Your task to perform on an android device: stop showing notifications on the lock screen Image 0: 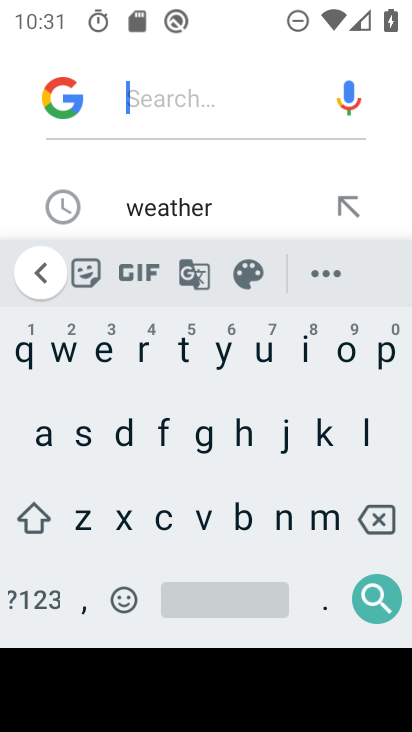
Step 0: press home button
Your task to perform on an android device: stop showing notifications on the lock screen Image 1: 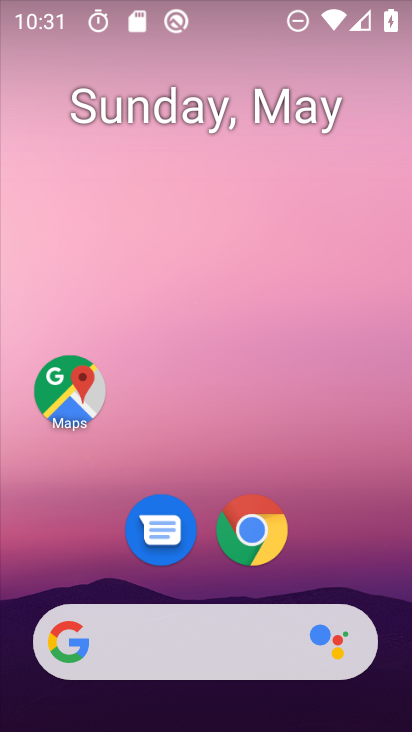
Step 1: drag from (219, 689) to (209, 116)
Your task to perform on an android device: stop showing notifications on the lock screen Image 2: 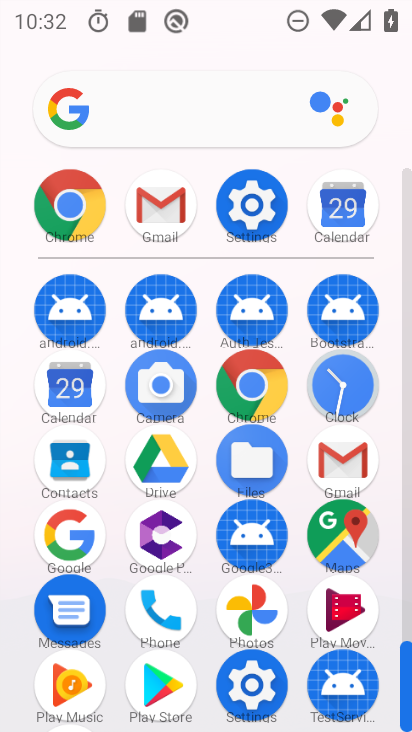
Step 2: click (247, 206)
Your task to perform on an android device: stop showing notifications on the lock screen Image 3: 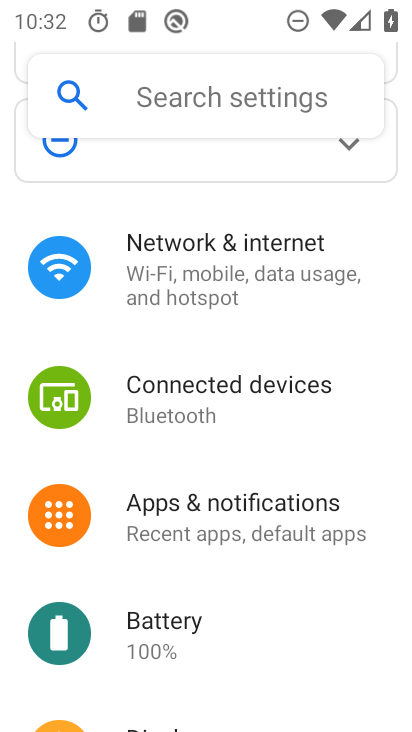
Step 3: click (155, 105)
Your task to perform on an android device: stop showing notifications on the lock screen Image 4: 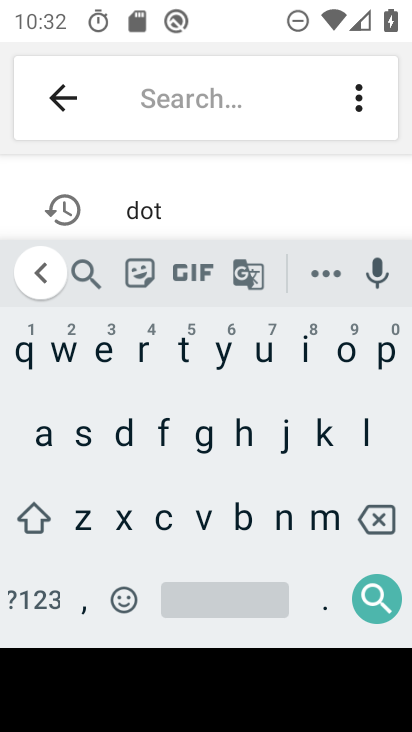
Step 4: click (286, 517)
Your task to perform on an android device: stop showing notifications on the lock screen Image 5: 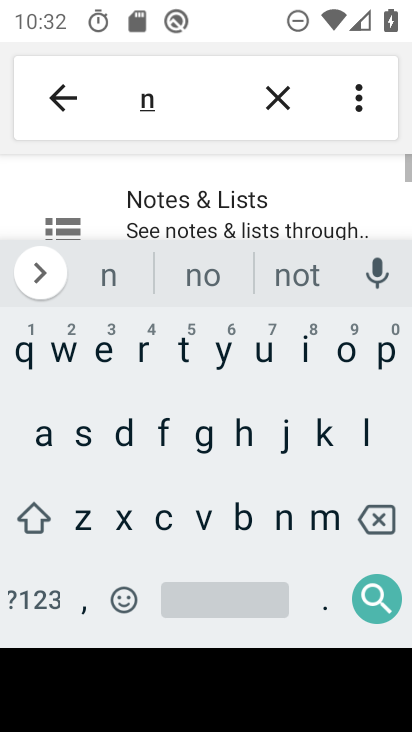
Step 5: click (348, 351)
Your task to perform on an android device: stop showing notifications on the lock screen Image 6: 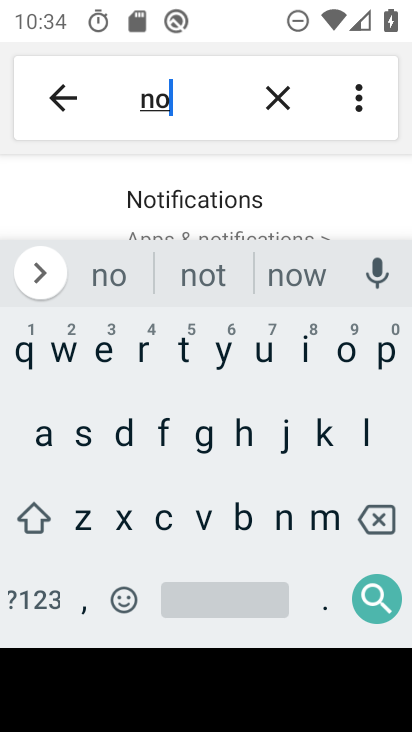
Step 6: click (214, 181)
Your task to perform on an android device: stop showing notifications on the lock screen Image 7: 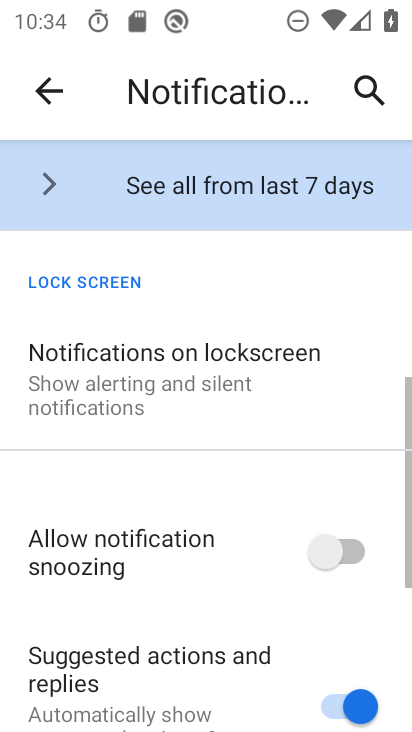
Step 7: click (138, 365)
Your task to perform on an android device: stop showing notifications on the lock screen Image 8: 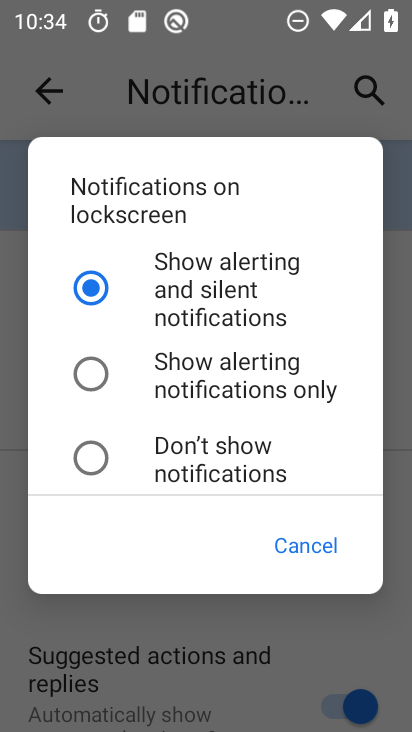
Step 8: task complete